Your task to perform on an android device: visit the assistant section in the google photos Image 0: 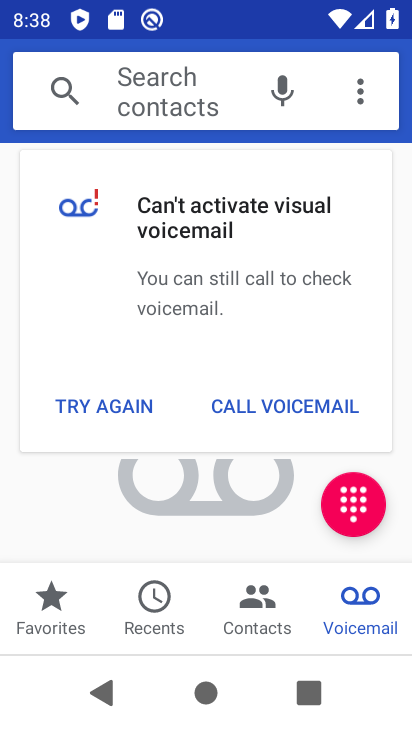
Step 0: press home button
Your task to perform on an android device: visit the assistant section in the google photos Image 1: 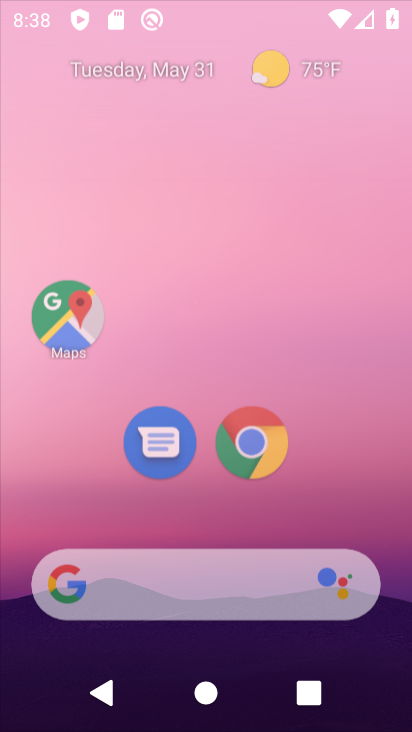
Step 1: drag from (181, 262) to (197, 31)
Your task to perform on an android device: visit the assistant section in the google photos Image 2: 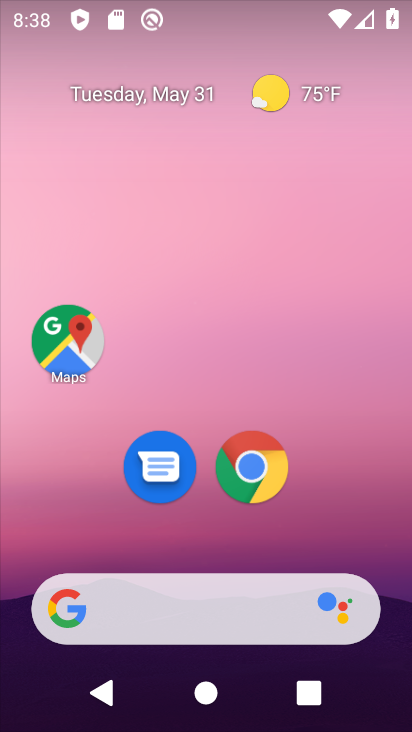
Step 2: drag from (182, 531) to (170, 22)
Your task to perform on an android device: visit the assistant section in the google photos Image 3: 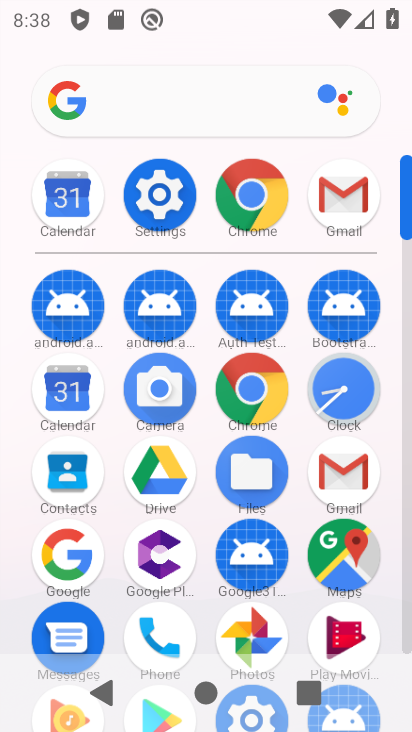
Step 3: click (270, 627)
Your task to perform on an android device: visit the assistant section in the google photos Image 4: 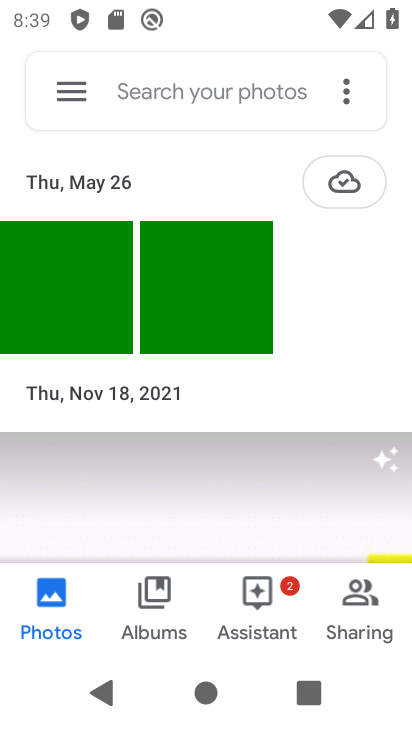
Step 4: drag from (190, 480) to (305, 41)
Your task to perform on an android device: visit the assistant section in the google photos Image 5: 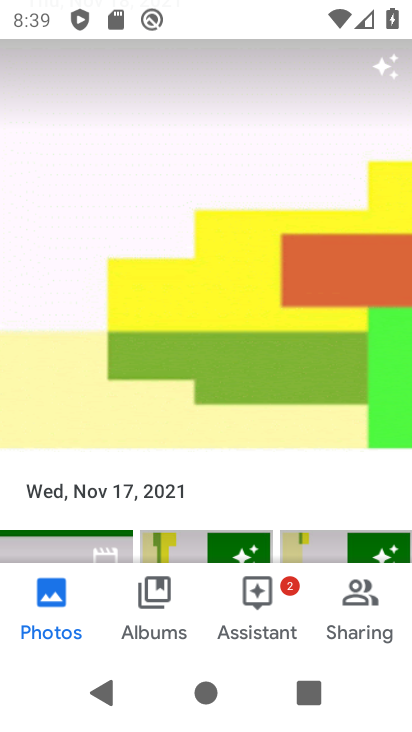
Step 5: click (258, 610)
Your task to perform on an android device: visit the assistant section in the google photos Image 6: 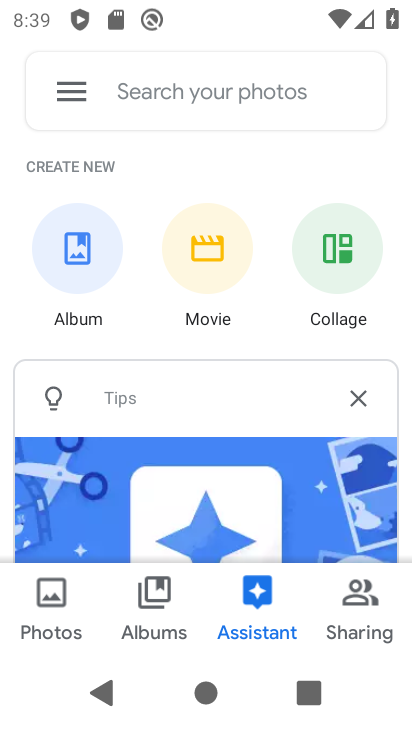
Step 6: task complete